Your task to perform on an android device: change notifications settings Image 0: 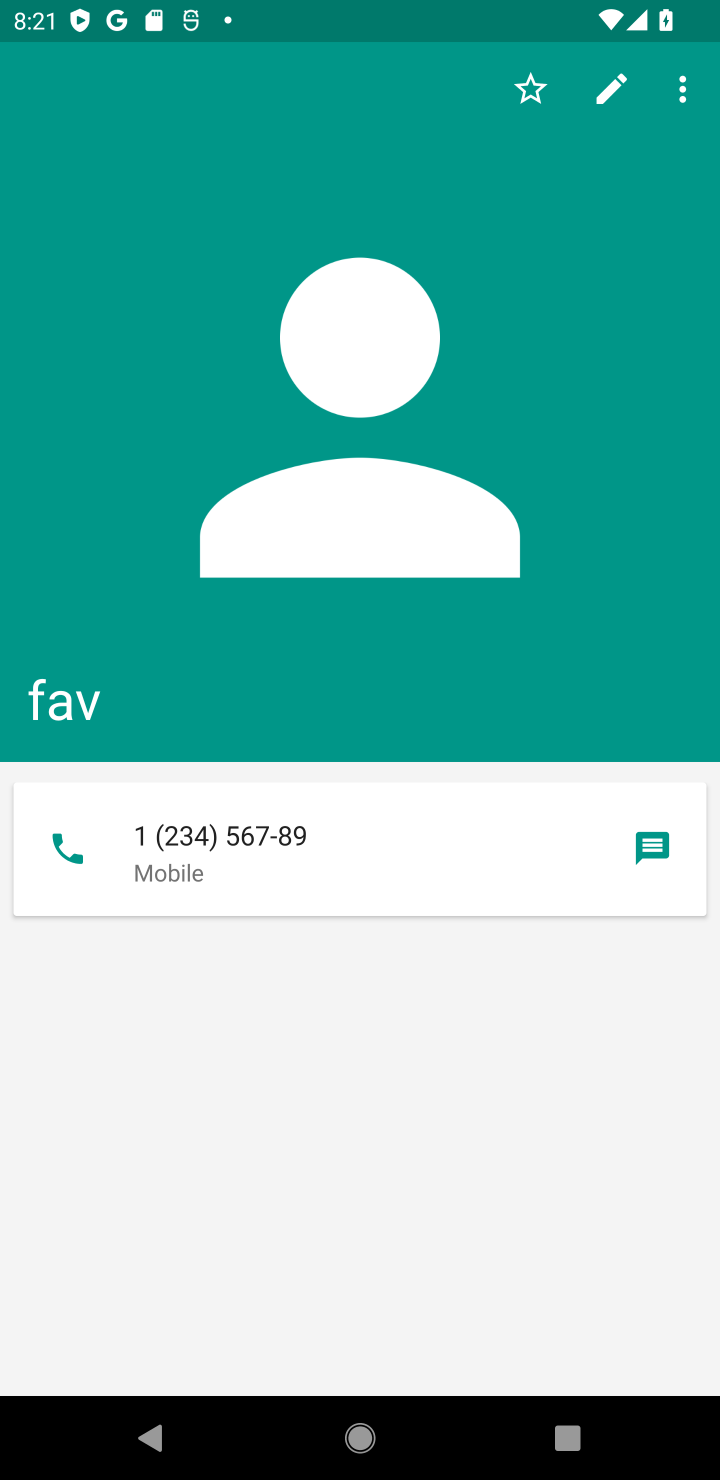
Step 0: press home button
Your task to perform on an android device: change notifications settings Image 1: 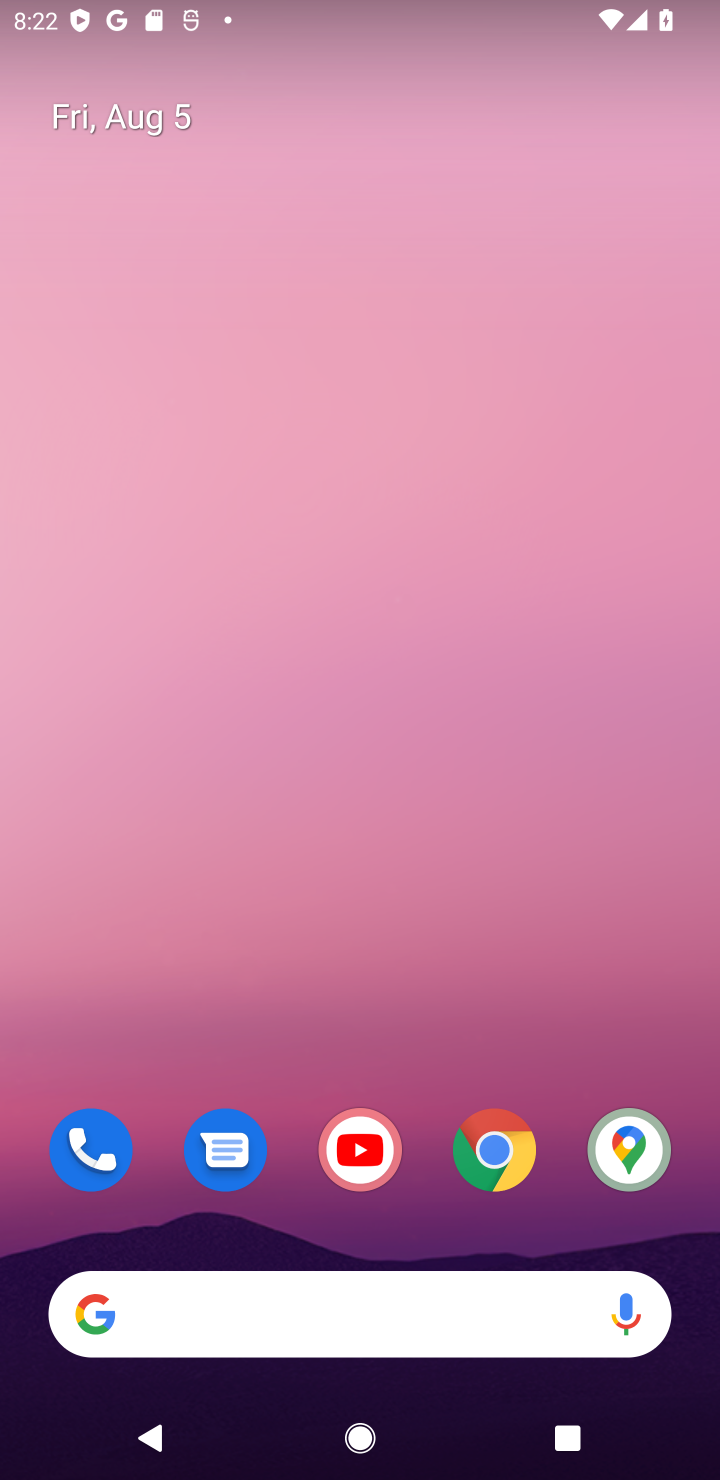
Step 1: drag from (435, 948) to (493, 321)
Your task to perform on an android device: change notifications settings Image 2: 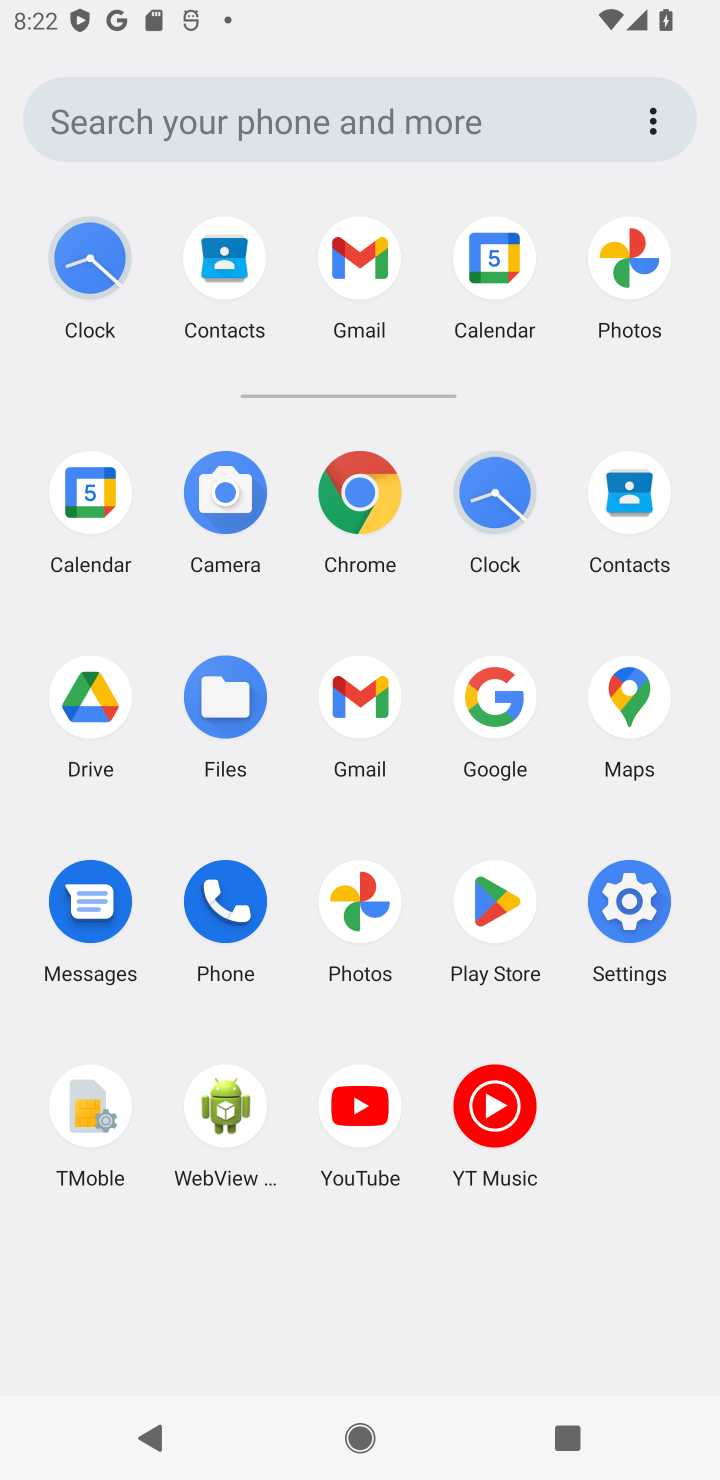
Step 2: click (639, 904)
Your task to perform on an android device: change notifications settings Image 3: 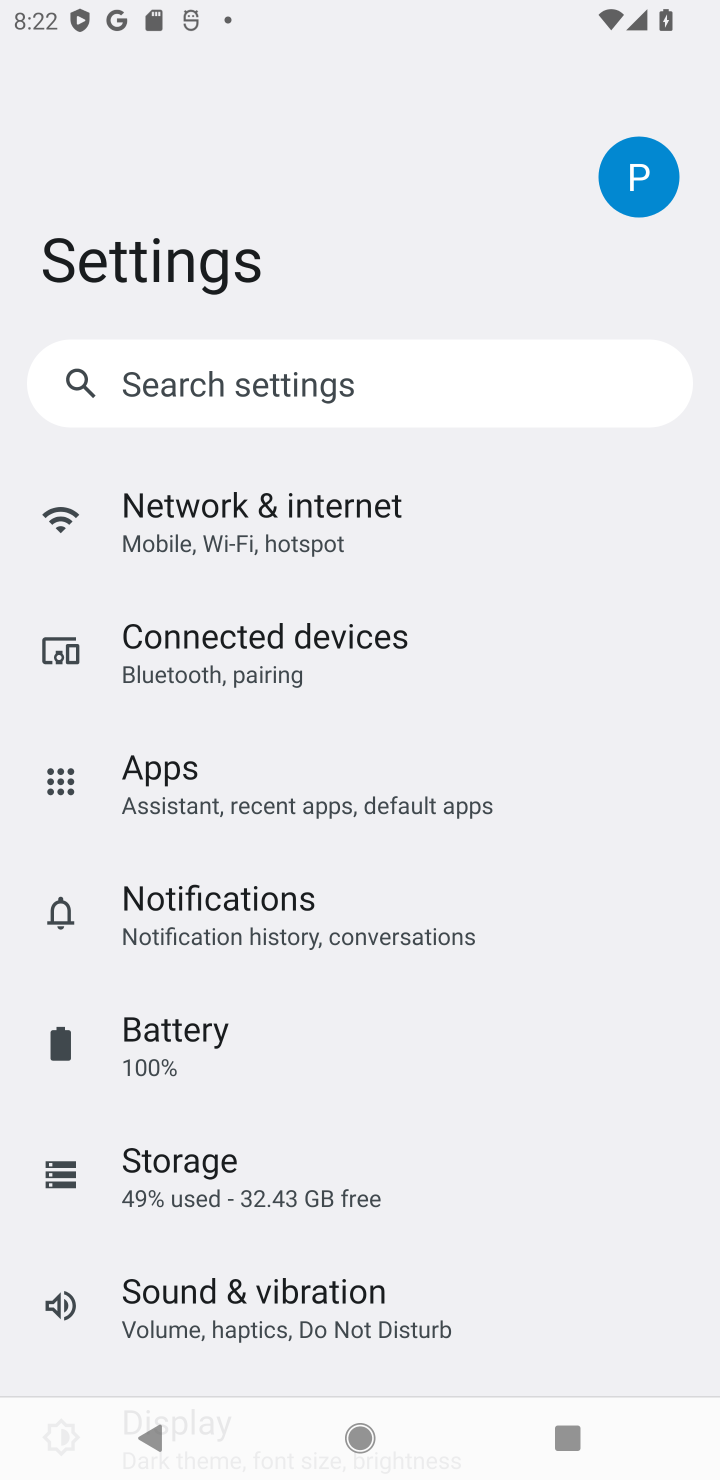
Step 3: click (409, 903)
Your task to perform on an android device: change notifications settings Image 4: 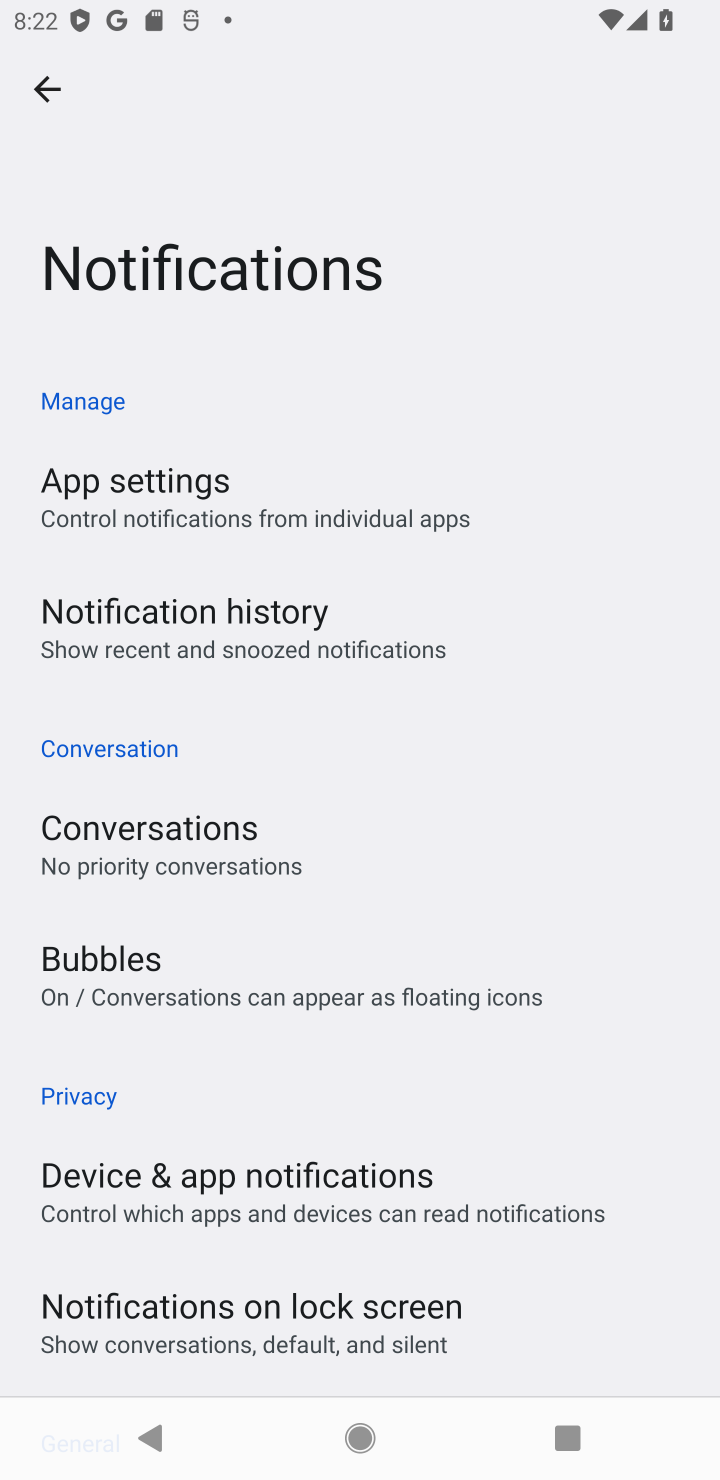
Step 4: drag from (414, 866) to (439, 602)
Your task to perform on an android device: change notifications settings Image 5: 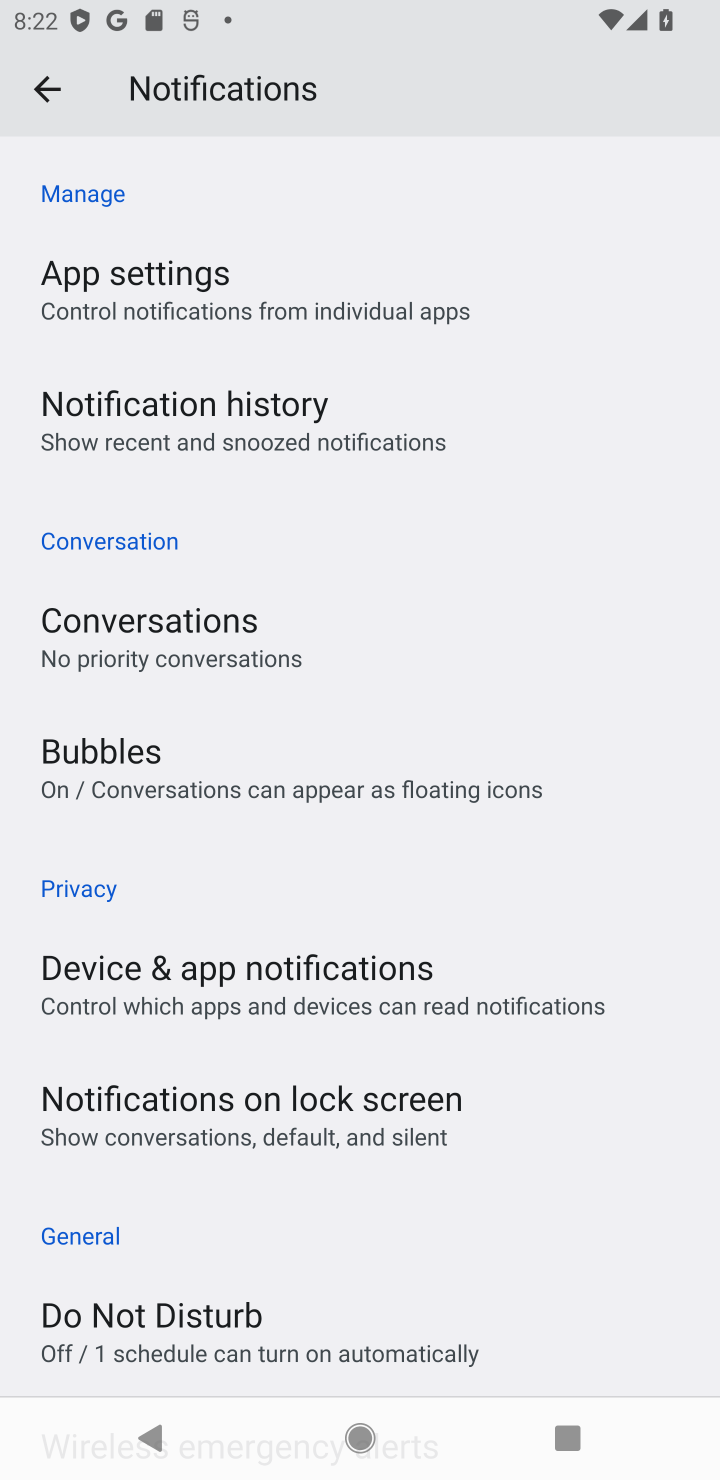
Step 5: click (383, 318)
Your task to perform on an android device: change notifications settings Image 6: 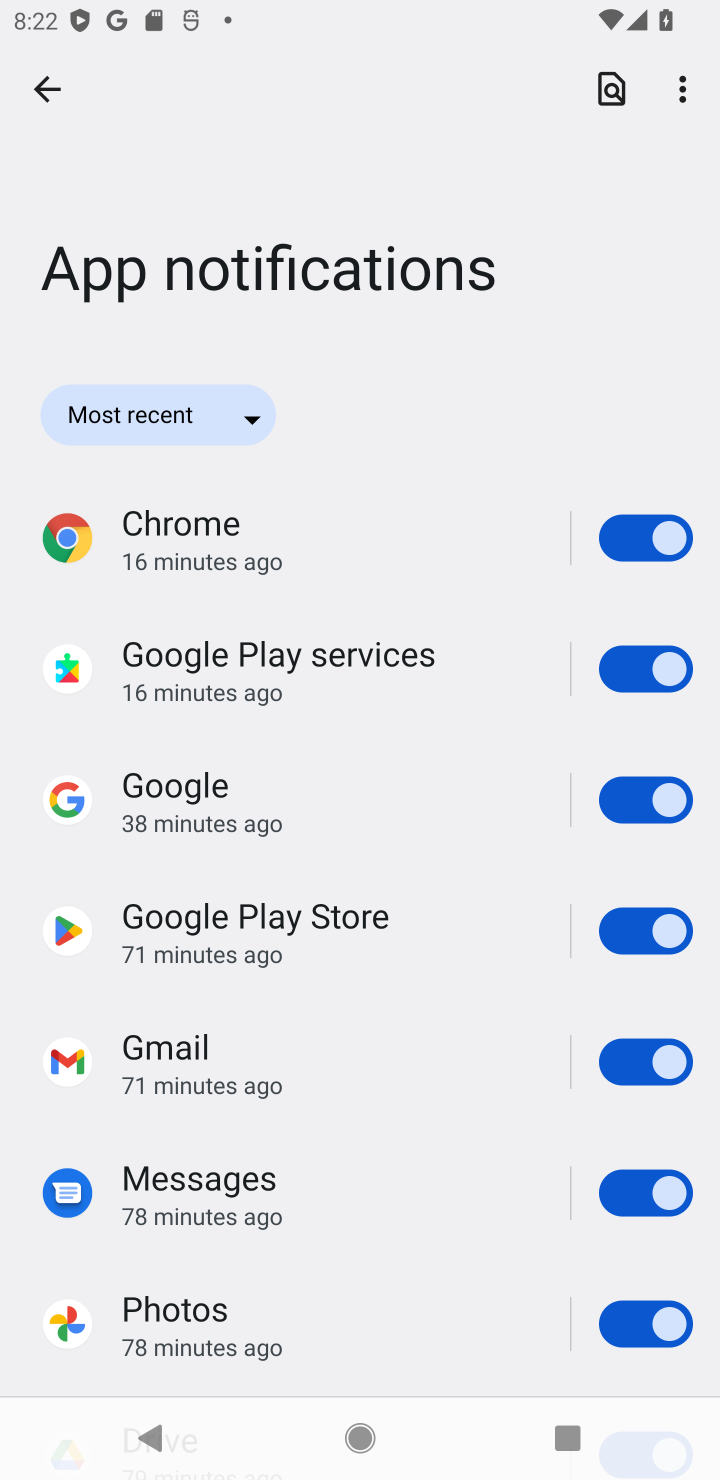
Step 6: click (644, 537)
Your task to perform on an android device: change notifications settings Image 7: 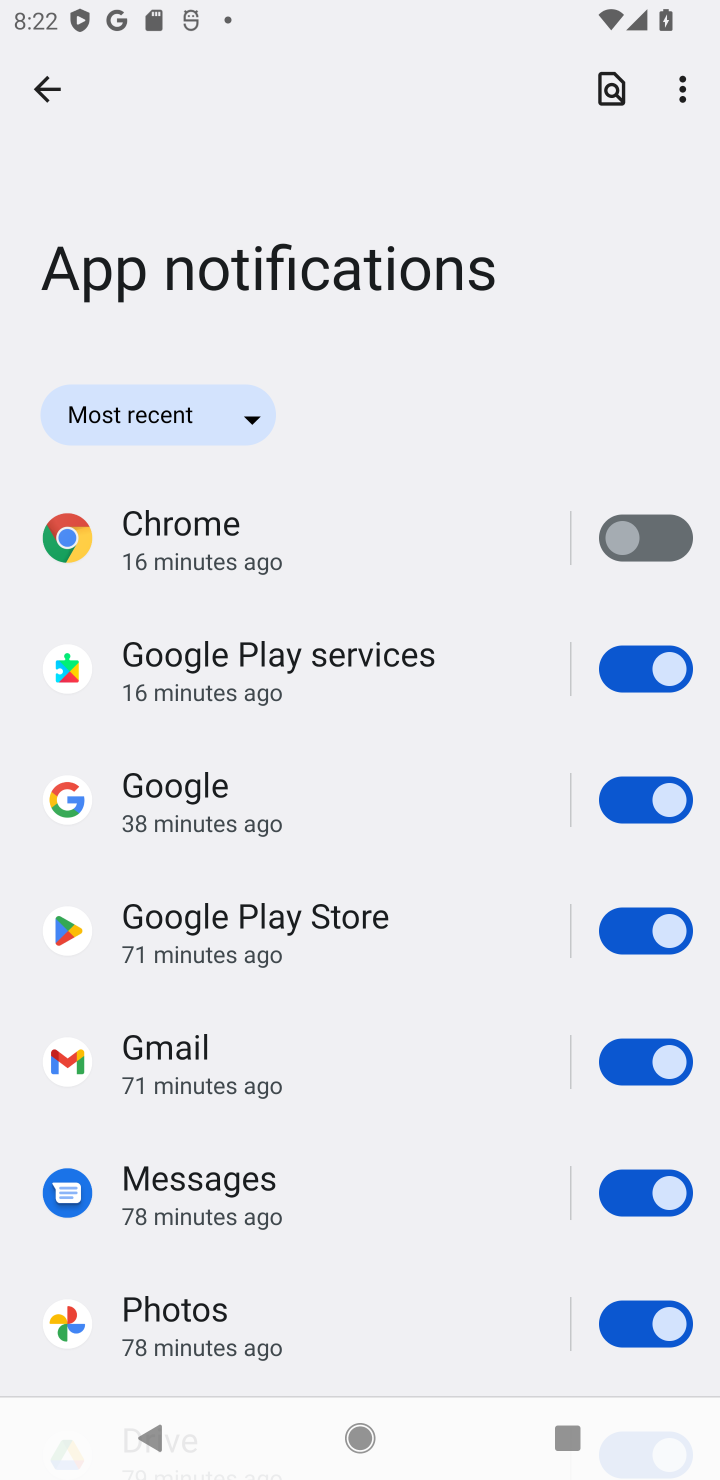
Step 7: click (640, 671)
Your task to perform on an android device: change notifications settings Image 8: 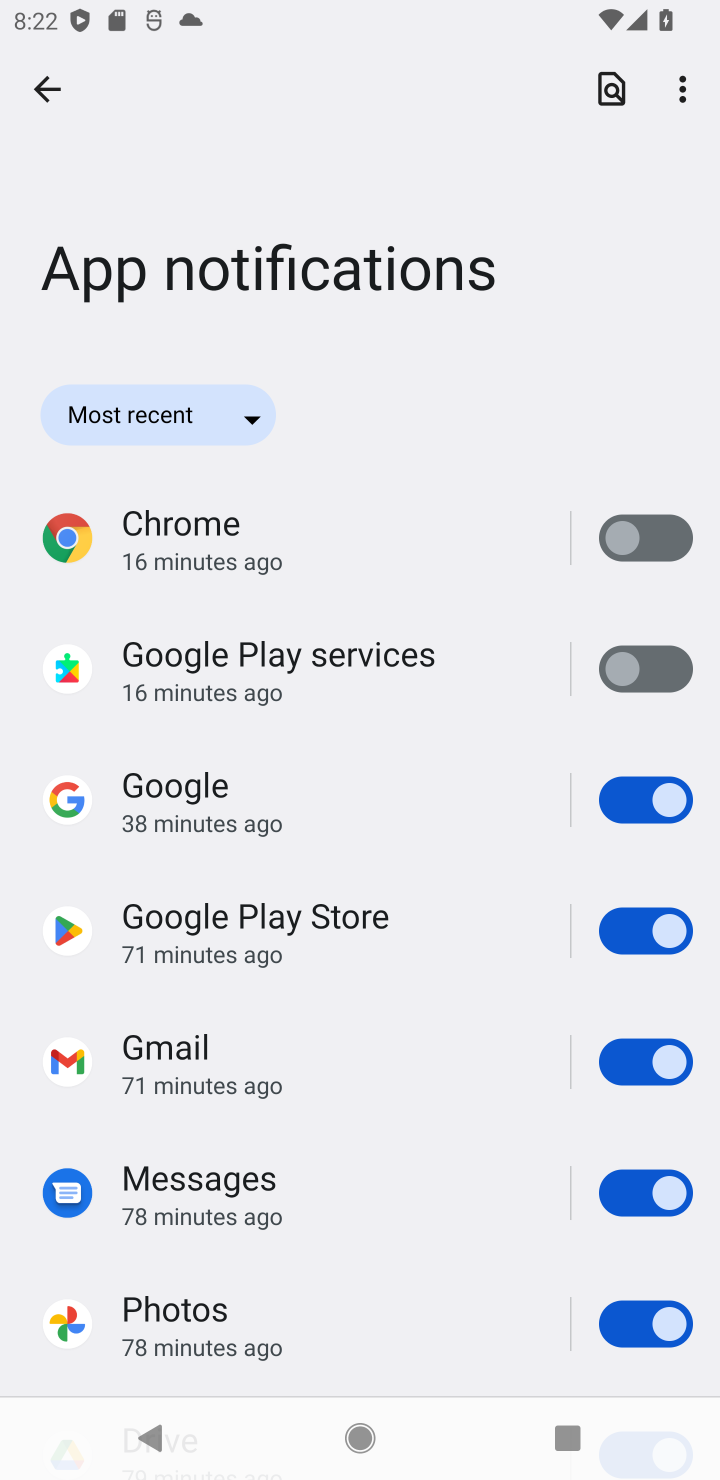
Step 8: click (655, 795)
Your task to perform on an android device: change notifications settings Image 9: 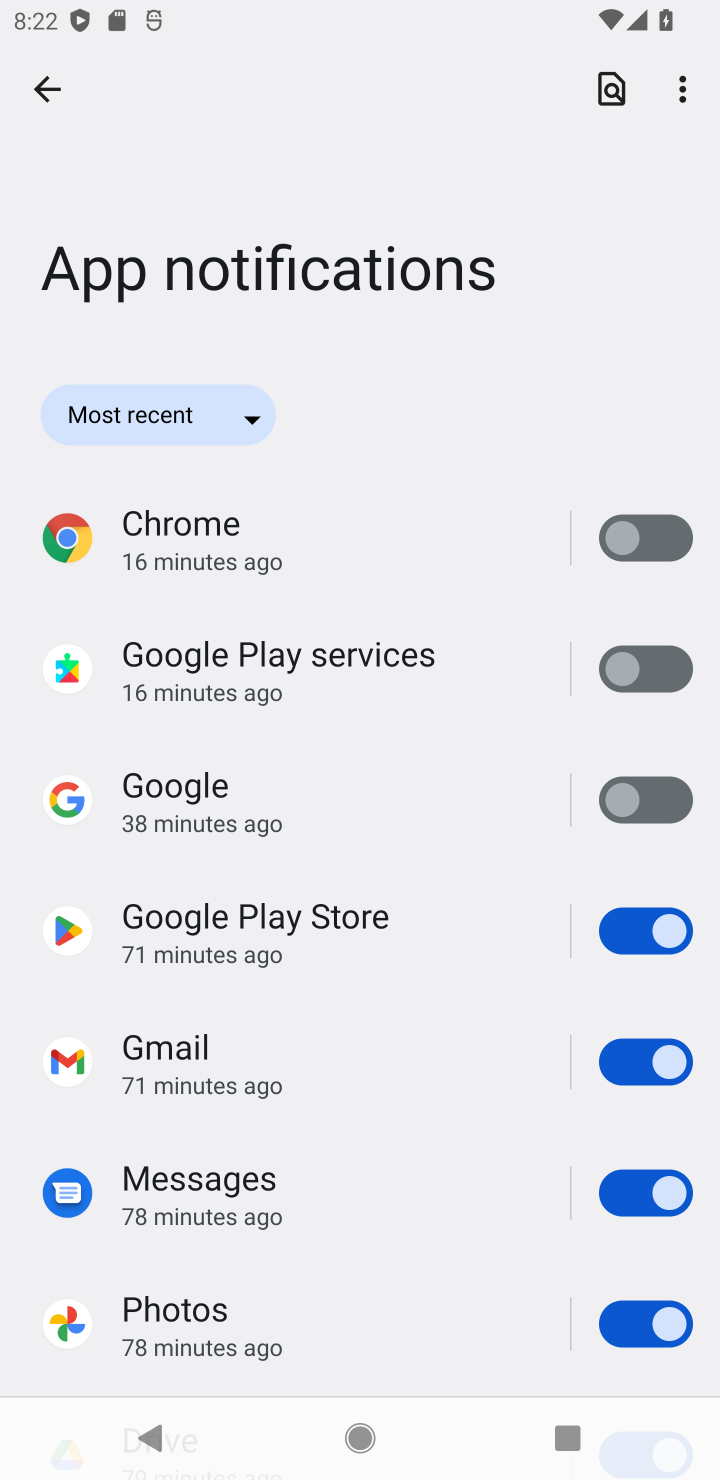
Step 9: click (652, 922)
Your task to perform on an android device: change notifications settings Image 10: 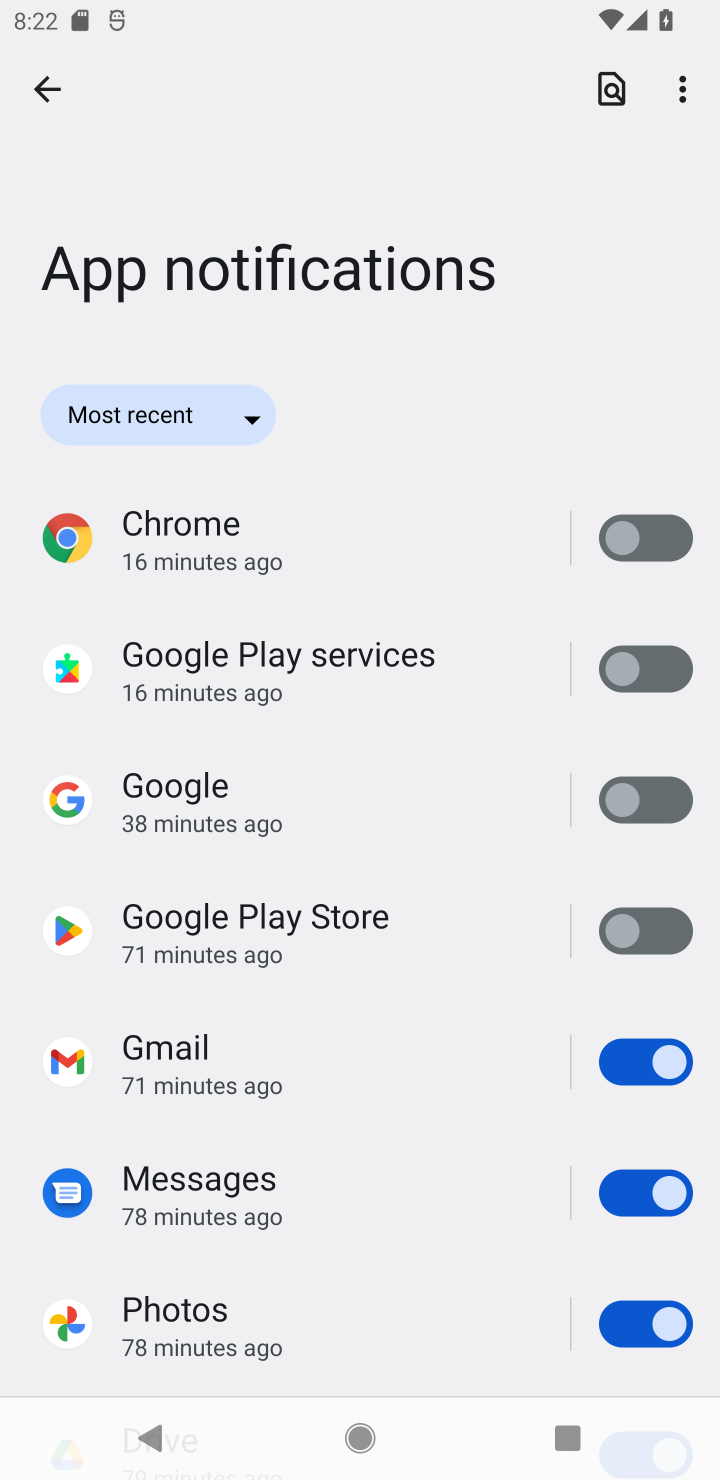
Step 10: click (656, 1074)
Your task to perform on an android device: change notifications settings Image 11: 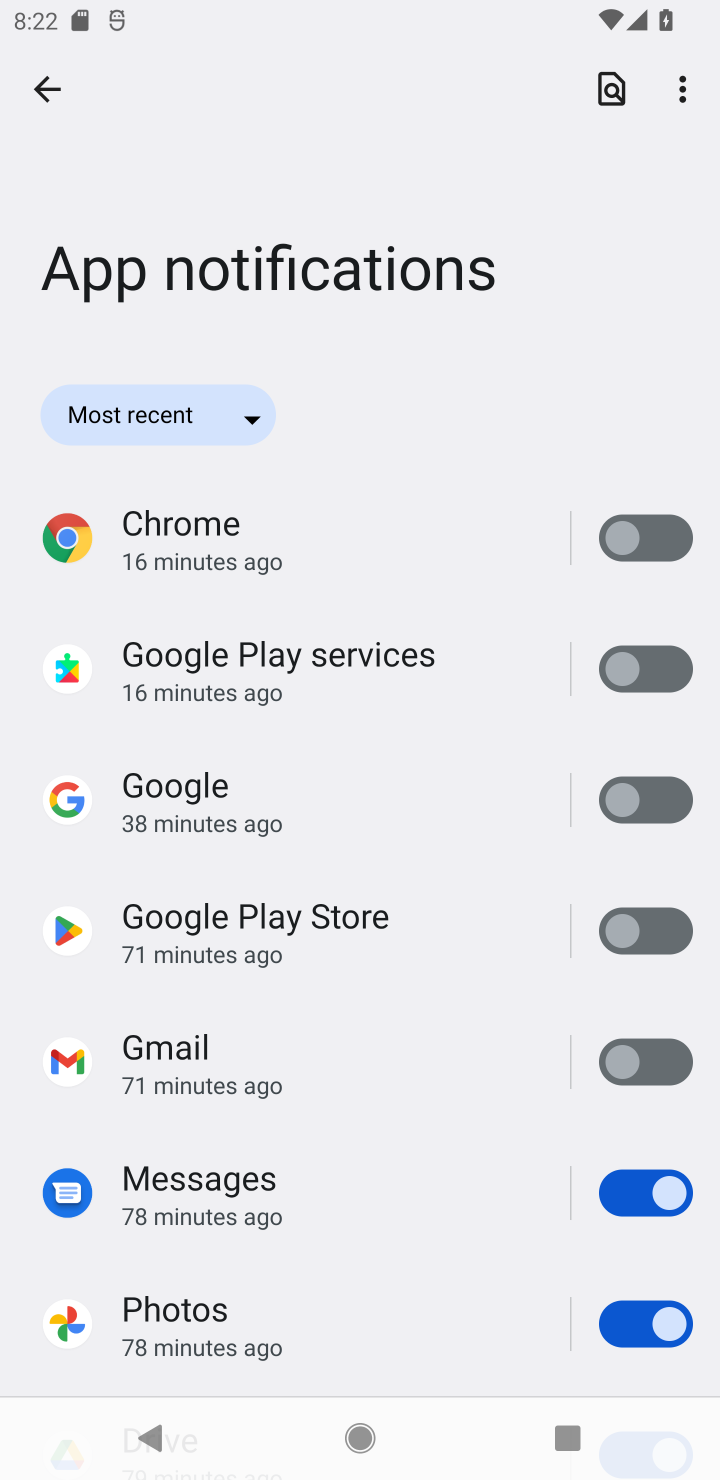
Step 11: click (644, 1182)
Your task to perform on an android device: change notifications settings Image 12: 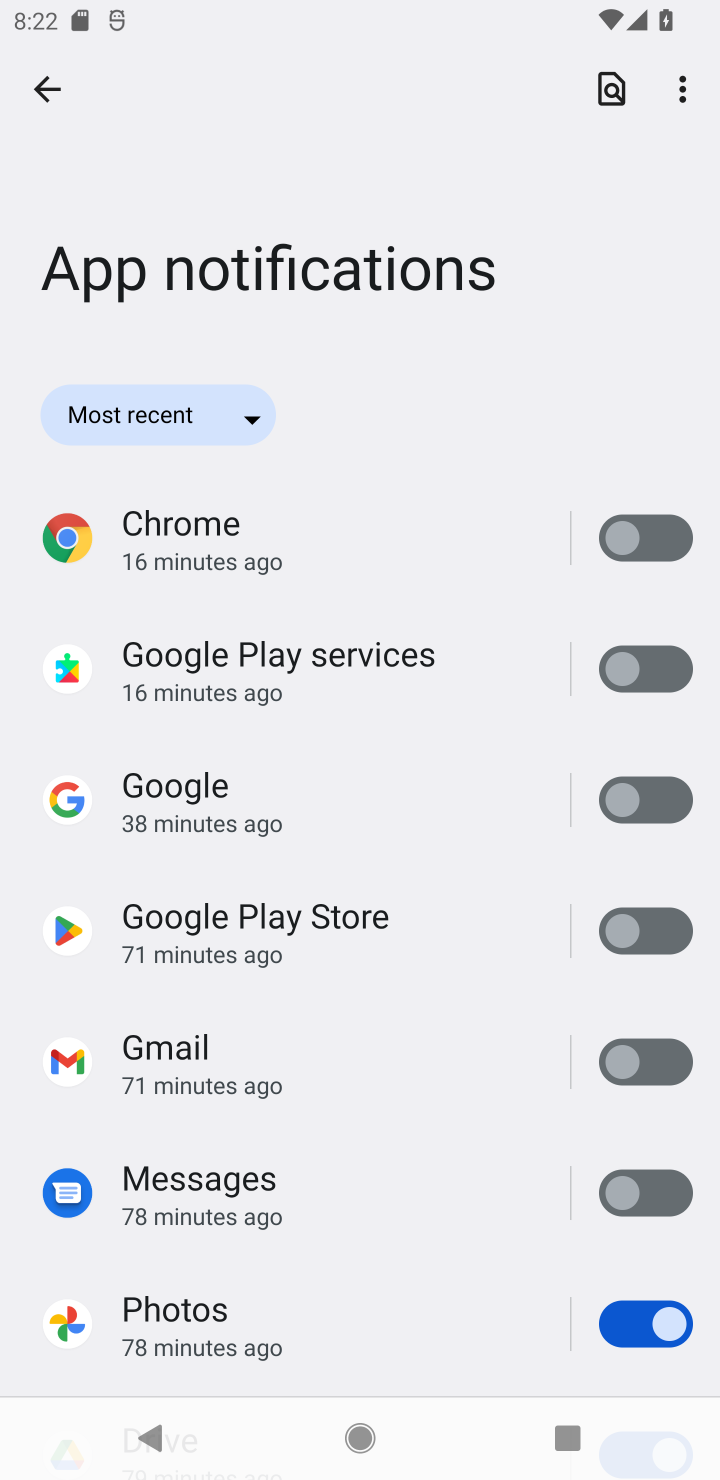
Step 12: click (635, 1321)
Your task to perform on an android device: change notifications settings Image 13: 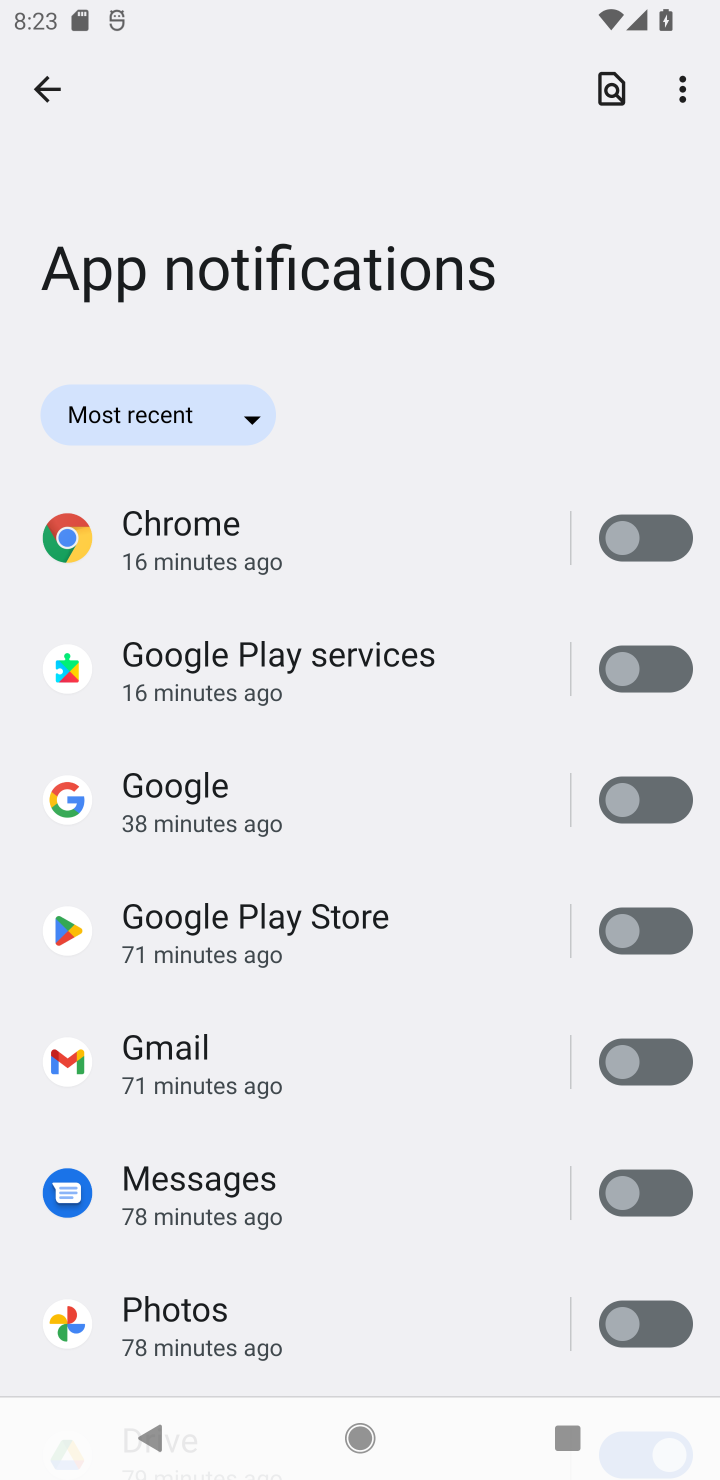
Step 13: task complete